Your task to perform on an android device: toggle airplane mode Image 0: 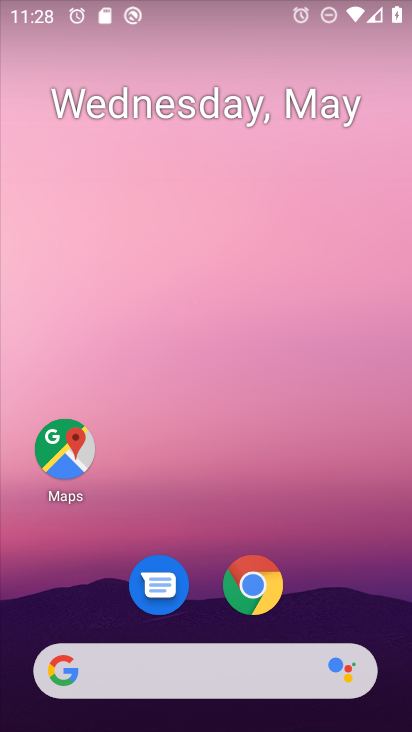
Step 0: drag from (337, 543) to (305, 55)
Your task to perform on an android device: toggle airplane mode Image 1: 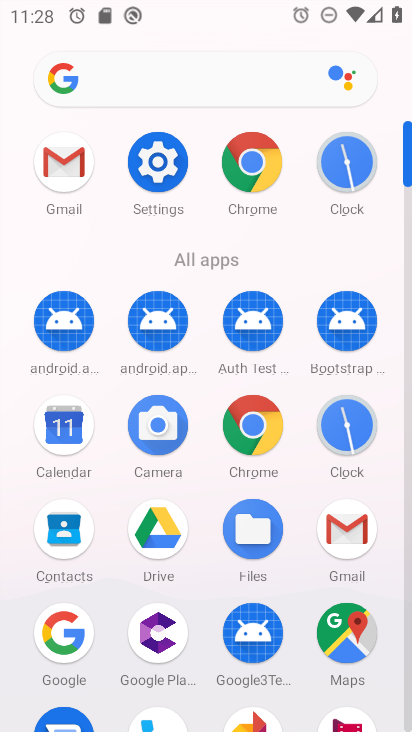
Step 1: click (173, 169)
Your task to perform on an android device: toggle airplane mode Image 2: 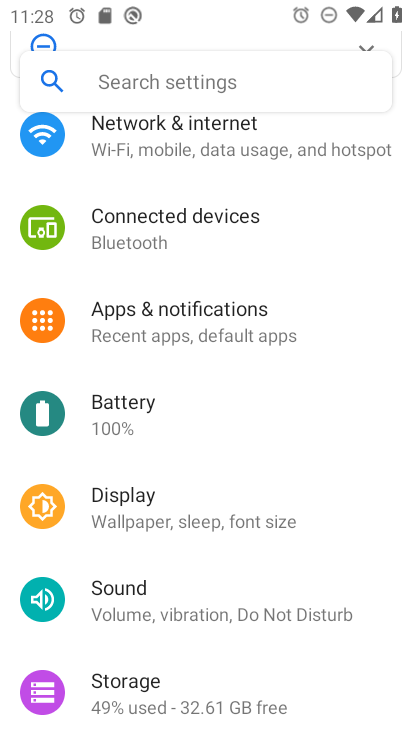
Step 2: click (215, 130)
Your task to perform on an android device: toggle airplane mode Image 3: 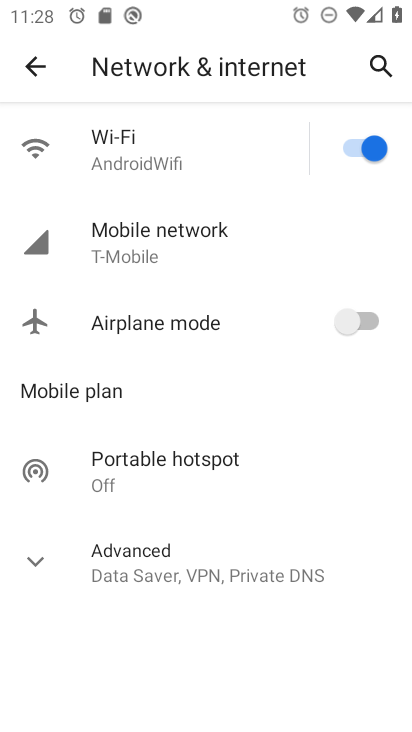
Step 3: click (369, 308)
Your task to perform on an android device: toggle airplane mode Image 4: 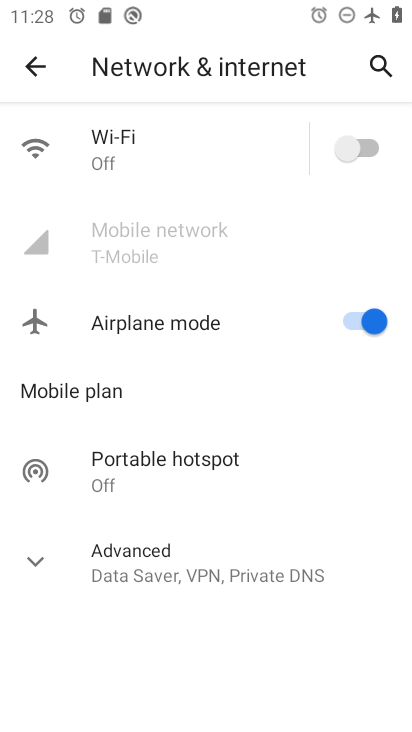
Step 4: task complete